Your task to perform on an android device: change text size in settings app Image 0: 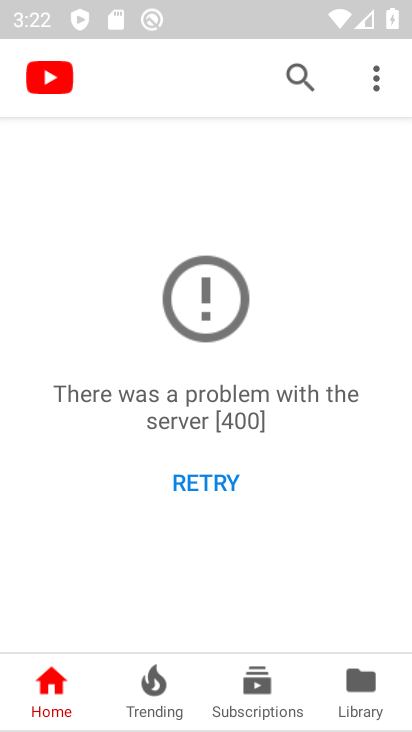
Step 0: press back button
Your task to perform on an android device: change text size in settings app Image 1: 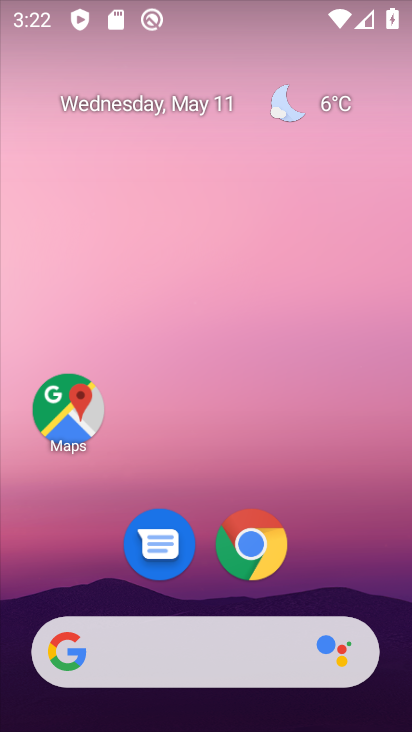
Step 1: drag from (191, 600) to (274, 100)
Your task to perform on an android device: change text size in settings app Image 2: 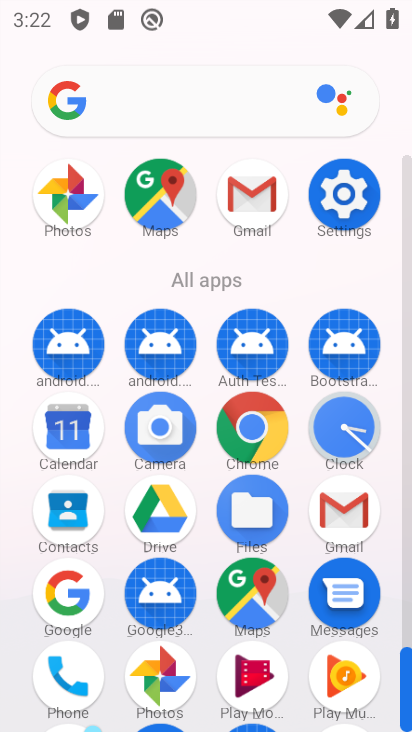
Step 2: drag from (171, 633) to (248, 373)
Your task to perform on an android device: change text size in settings app Image 3: 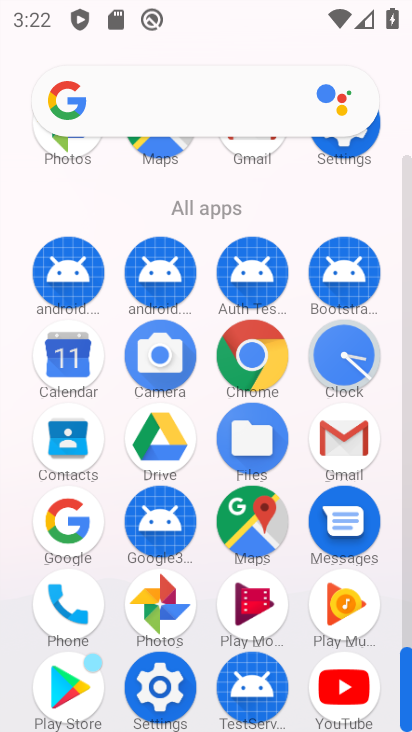
Step 3: click (172, 698)
Your task to perform on an android device: change text size in settings app Image 4: 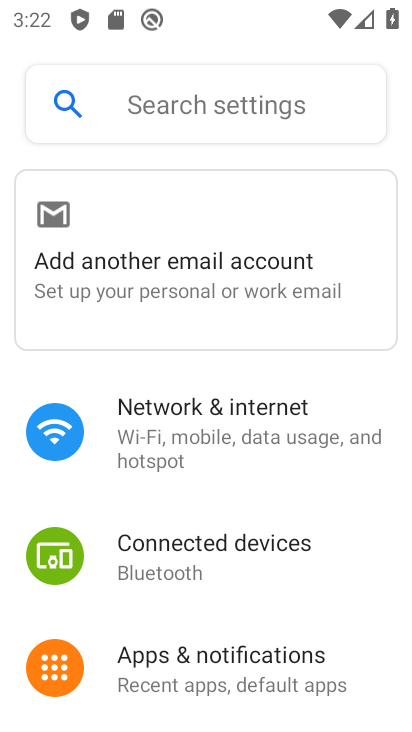
Step 4: drag from (181, 697) to (251, 295)
Your task to perform on an android device: change text size in settings app Image 5: 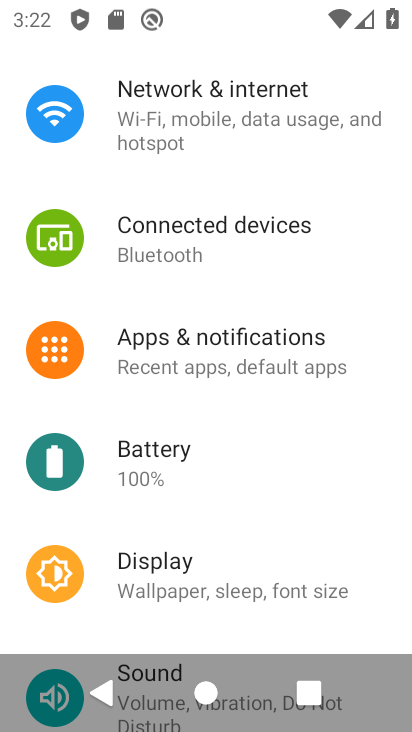
Step 5: drag from (201, 611) to (235, 310)
Your task to perform on an android device: change text size in settings app Image 6: 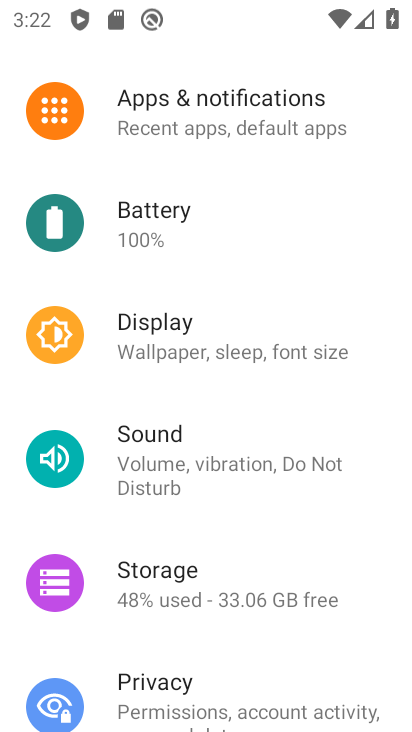
Step 6: click (198, 362)
Your task to perform on an android device: change text size in settings app Image 7: 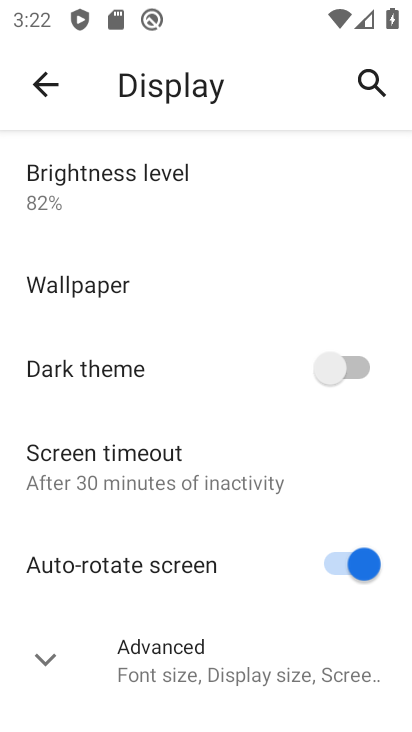
Step 7: drag from (184, 601) to (246, 239)
Your task to perform on an android device: change text size in settings app Image 8: 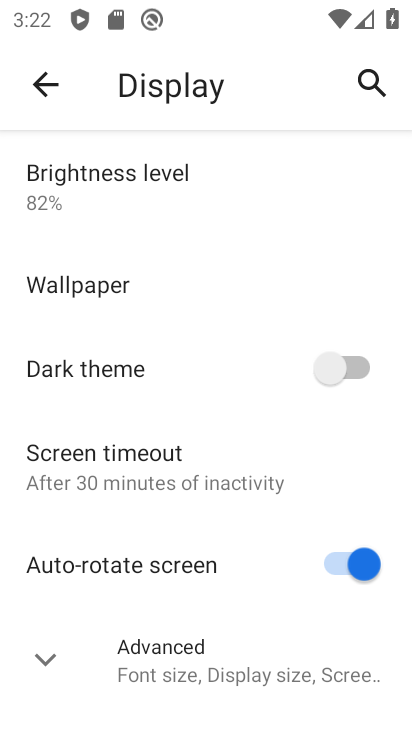
Step 8: click (209, 664)
Your task to perform on an android device: change text size in settings app Image 9: 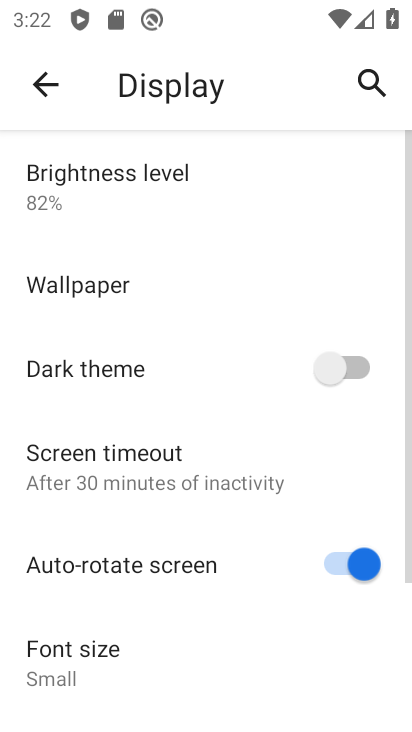
Step 9: drag from (174, 709) to (207, 402)
Your task to perform on an android device: change text size in settings app Image 10: 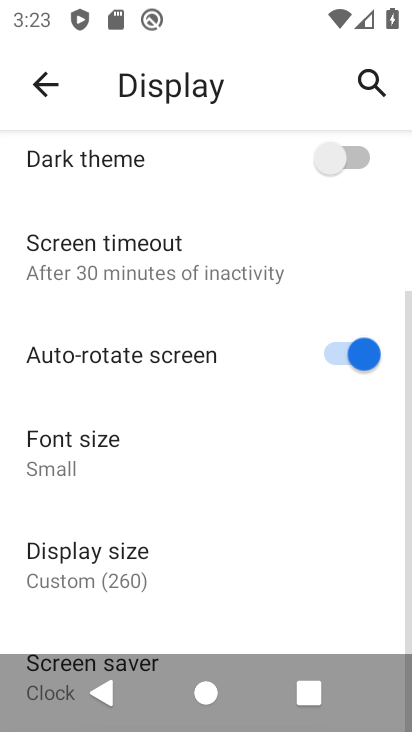
Step 10: click (99, 453)
Your task to perform on an android device: change text size in settings app Image 11: 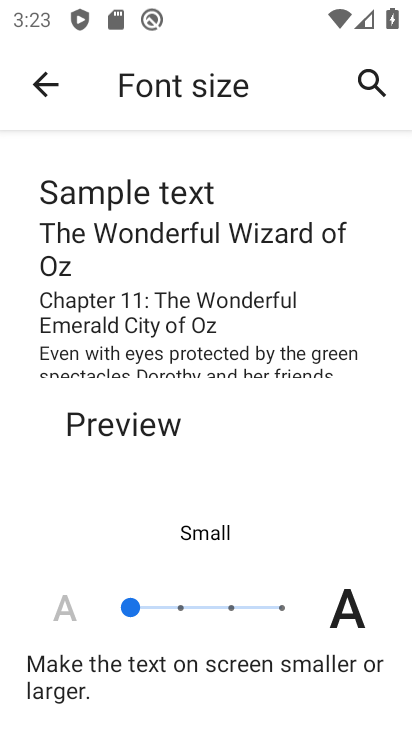
Step 11: click (237, 608)
Your task to perform on an android device: change text size in settings app Image 12: 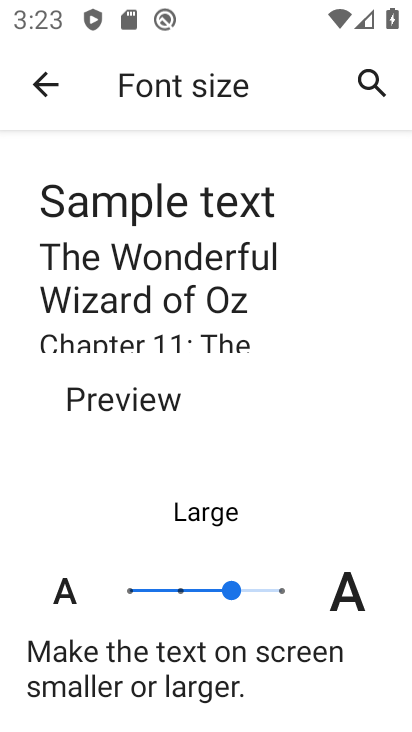
Step 12: task complete